Your task to perform on an android device: open app "Etsy: Buy & Sell Unique Items" Image 0: 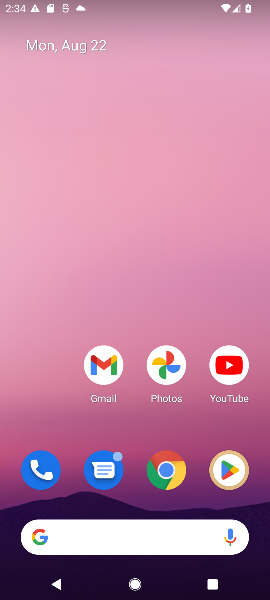
Step 0: drag from (120, 503) to (125, 179)
Your task to perform on an android device: open app "Etsy: Buy & Sell Unique Items" Image 1: 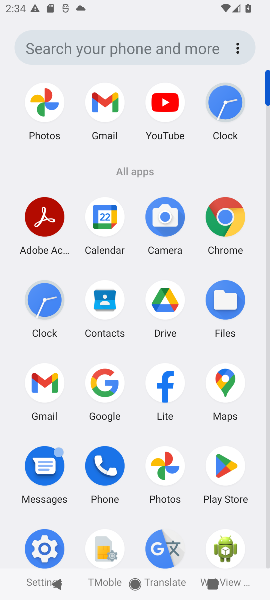
Step 1: click (232, 462)
Your task to perform on an android device: open app "Etsy: Buy & Sell Unique Items" Image 2: 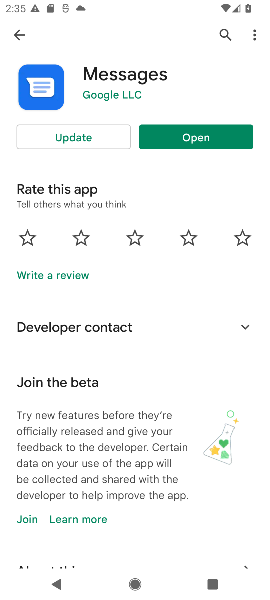
Step 2: click (9, 25)
Your task to perform on an android device: open app "Etsy: Buy & Sell Unique Items" Image 3: 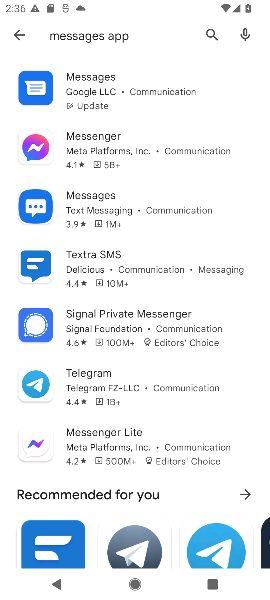
Step 3: click (11, 25)
Your task to perform on an android device: open app "Etsy: Buy & Sell Unique Items" Image 4: 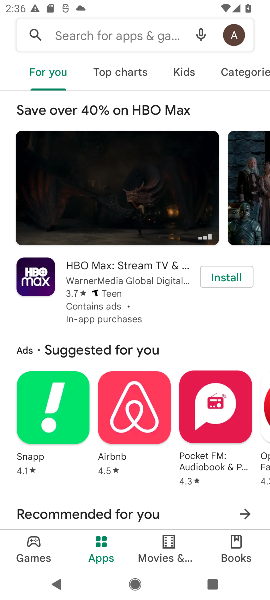
Step 4: click (124, 35)
Your task to perform on an android device: open app "Etsy: Buy & Sell Unique Items" Image 5: 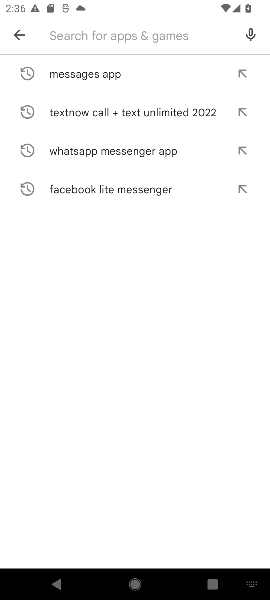
Step 5: type "Etsy: Buy & Sell Unique Items"
Your task to perform on an android device: open app "Etsy: Buy & Sell Unique Items" Image 6: 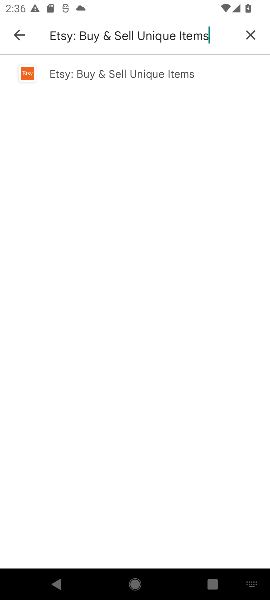
Step 6: click (119, 69)
Your task to perform on an android device: open app "Etsy: Buy & Sell Unique Items" Image 7: 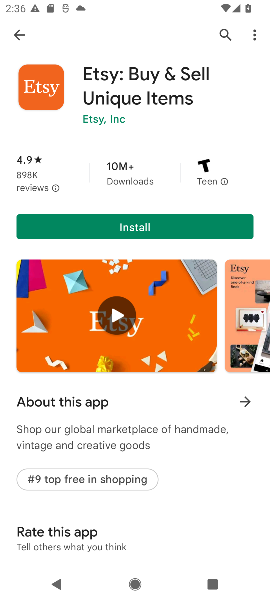
Step 7: click (155, 222)
Your task to perform on an android device: open app "Etsy: Buy & Sell Unique Items" Image 8: 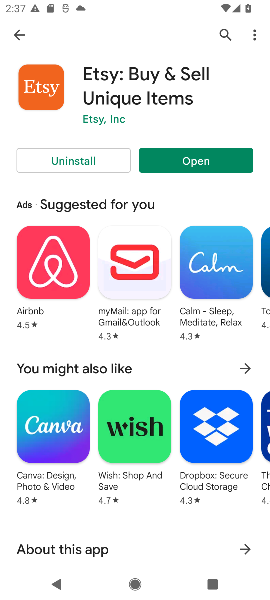
Step 8: click (230, 156)
Your task to perform on an android device: open app "Etsy: Buy & Sell Unique Items" Image 9: 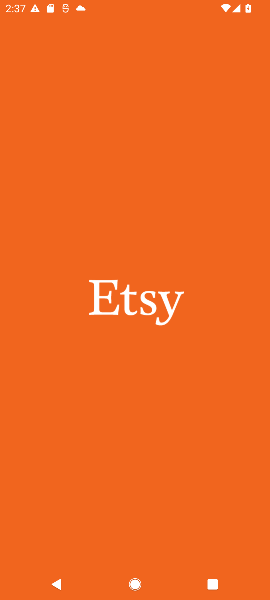
Step 9: task complete